Your task to perform on an android device: read, delete, or share a saved page in the chrome app Image 0: 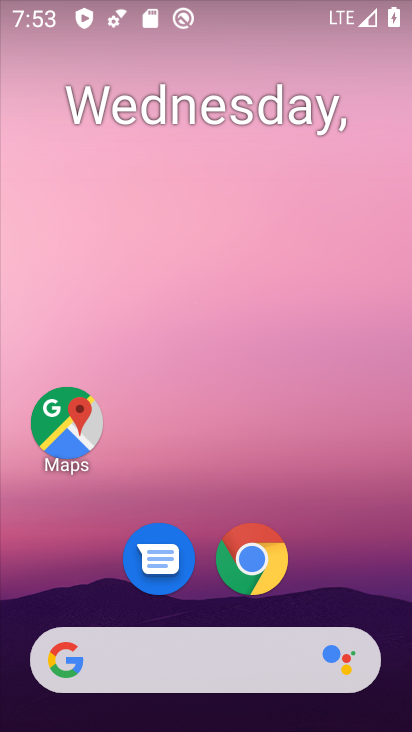
Step 0: click (264, 551)
Your task to perform on an android device: read, delete, or share a saved page in the chrome app Image 1: 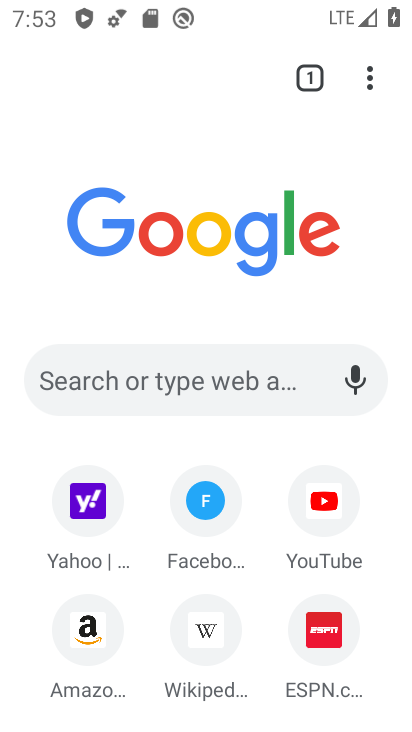
Step 1: drag from (367, 68) to (122, 507)
Your task to perform on an android device: read, delete, or share a saved page in the chrome app Image 2: 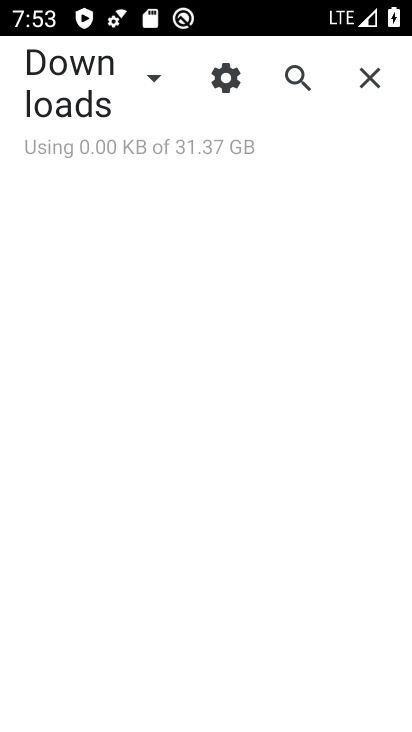
Step 2: click (150, 65)
Your task to perform on an android device: read, delete, or share a saved page in the chrome app Image 3: 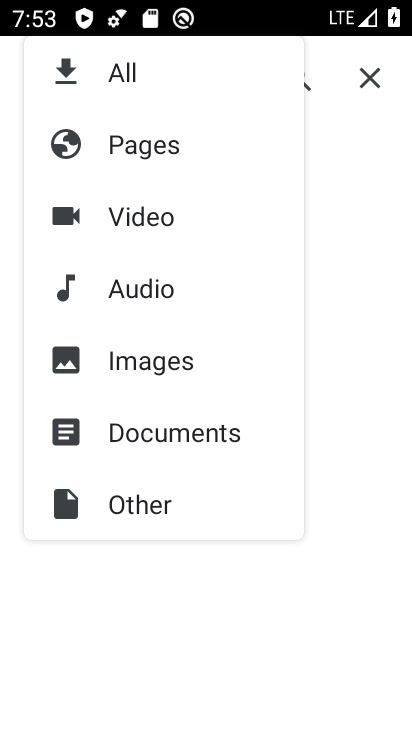
Step 3: click (157, 151)
Your task to perform on an android device: read, delete, or share a saved page in the chrome app Image 4: 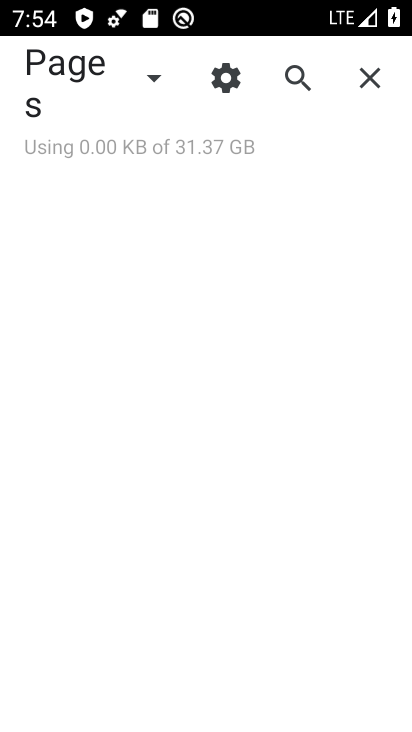
Step 4: task complete